Your task to perform on an android device: Open Google Chrome and open the bookmarks view Image 0: 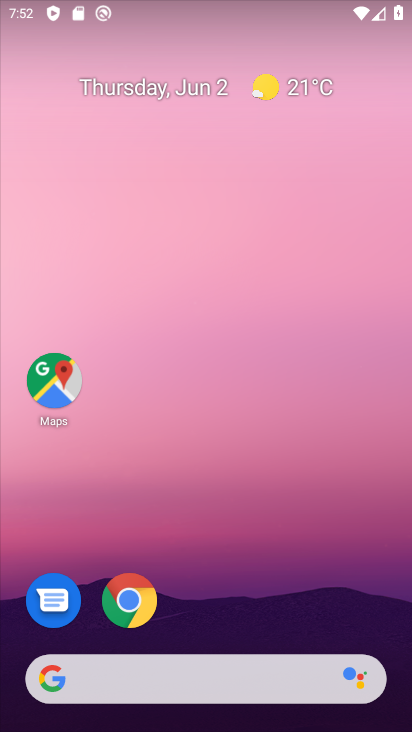
Step 0: press home button
Your task to perform on an android device: Open Google Chrome and open the bookmarks view Image 1: 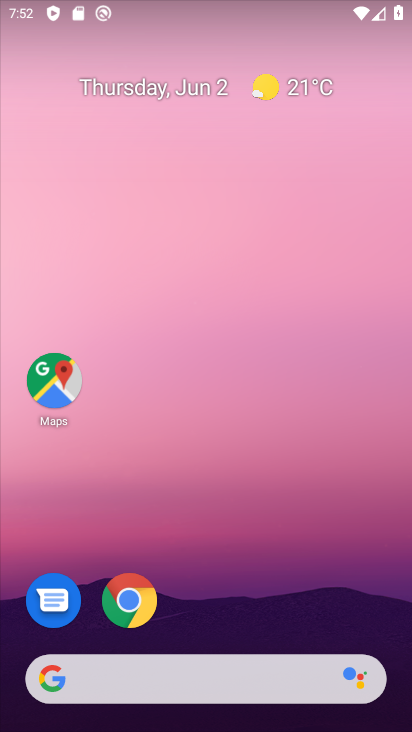
Step 1: drag from (354, 611) to (352, 158)
Your task to perform on an android device: Open Google Chrome and open the bookmarks view Image 2: 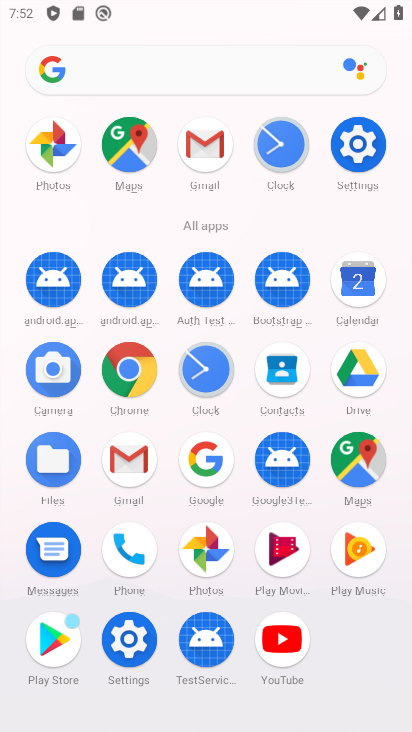
Step 2: click (129, 387)
Your task to perform on an android device: Open Google Chrome and open the bookmarks view Image 3: 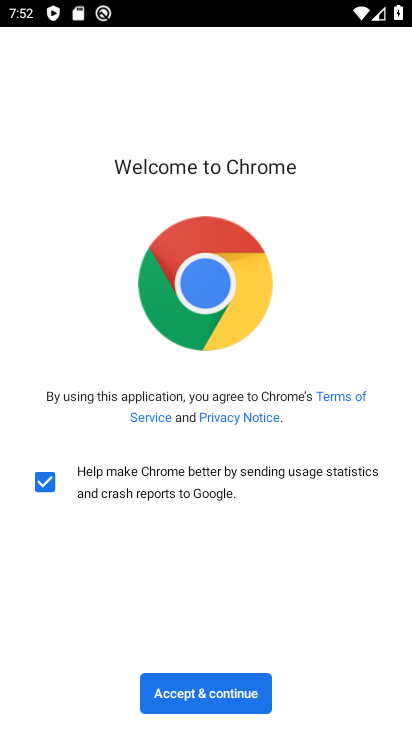
Step 3: click (215, 689)
Your task to perform on an android device: Open Google Chrome and open the bookmarks view Image 4: 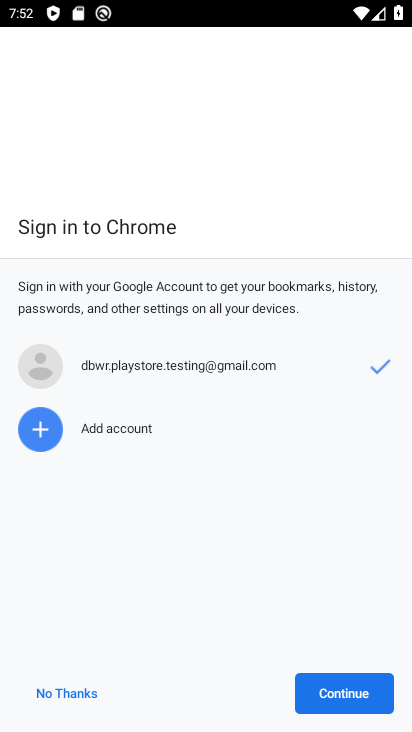
Step 4: click (328, 686)
Your task to perform on an android device: Open Google Chrome and open the bookmarks view Image 5: 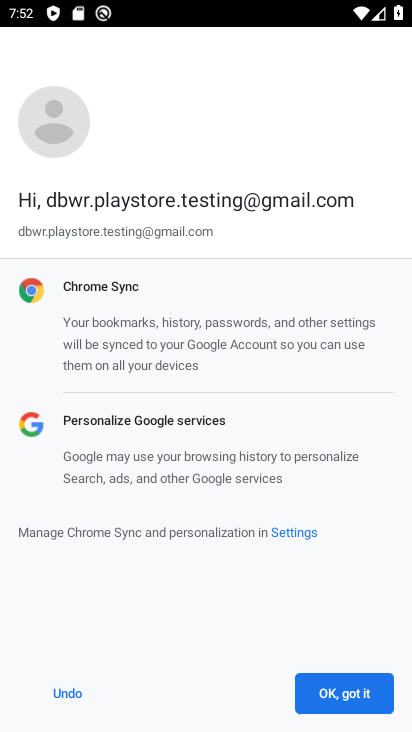
Step 5: click (328, 686)
Your task to perform on an android device: Open Google Chrome and open the bookmarks view Image 6: 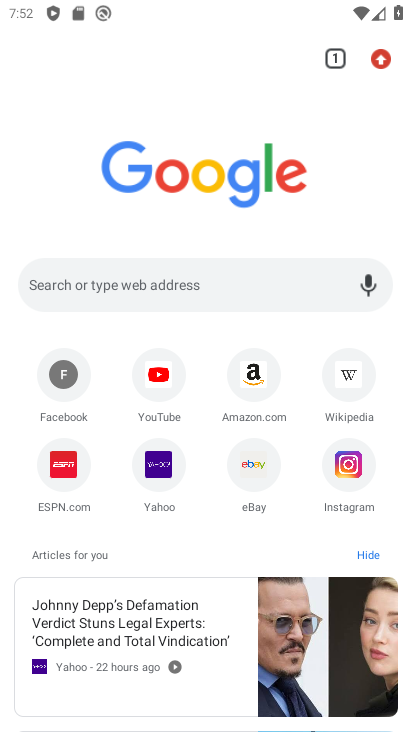
Step 6: click (383, 61)
Your task to perform on an android device: Open Google Chrome and open the bookmarks view Image 7: 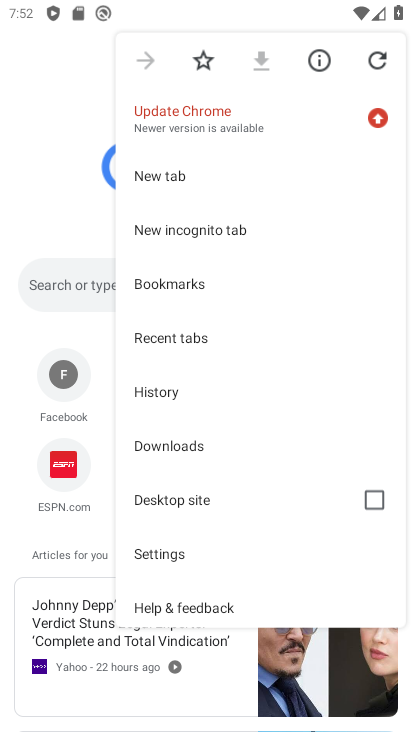
Step 7: click (215, 292)
Your task to perform on an android device: Open Google Chrome and open the bookmarks view Image 8: 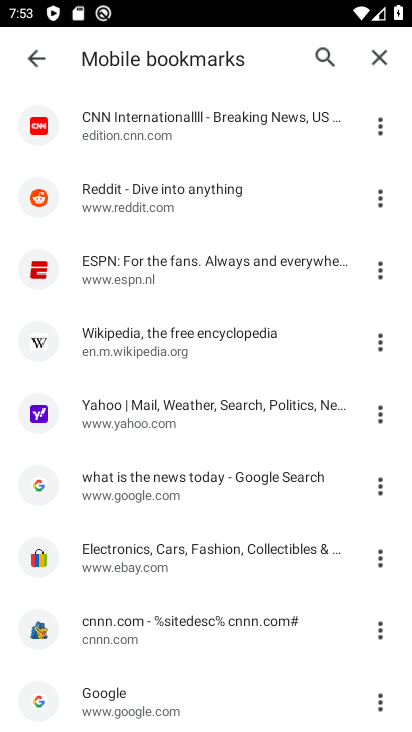
Step 8: task complete